Your task to perform on an android device: make emails show in primary in the gmail app Image 0: 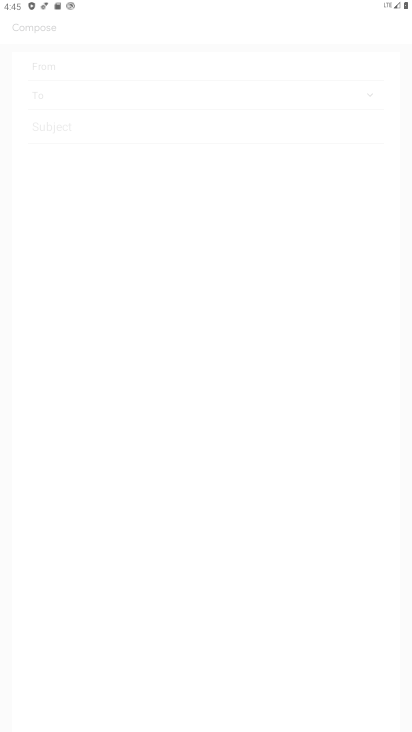
Step 0: press home button
Your task to perform on an android device: make emails show in primary in the gmail app Image 1: 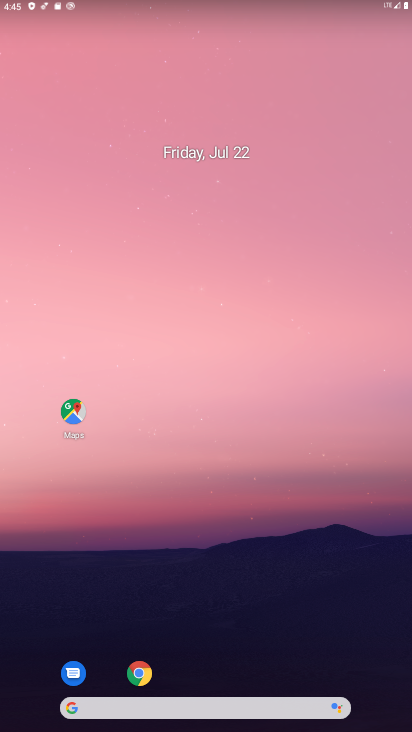
Step 1: drag from (255, 668) to (283, 183)
Your task to perform on an android device: make emails show in primary in the gmail app Image 2: 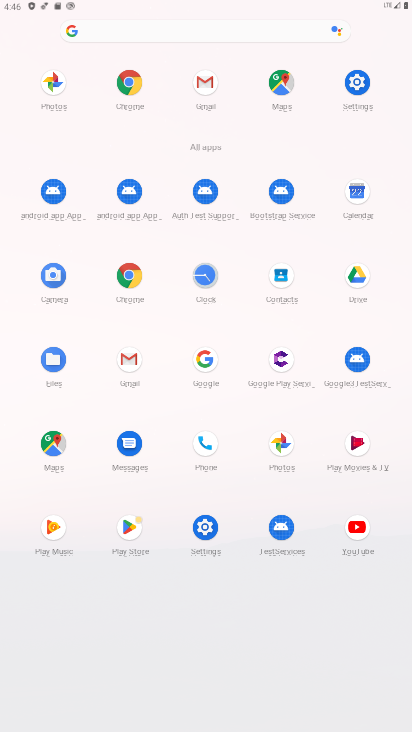
Step 2: click (198, 81)
Your task to perform on an android device: make emails show in primary in the gmail app Image 3: 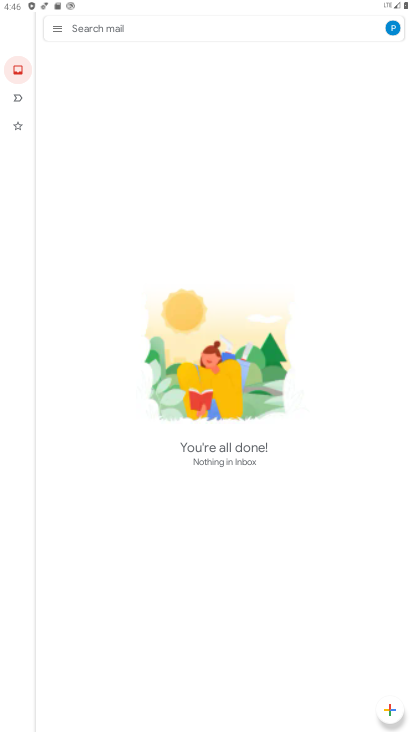
Step 3: click (57, 29)
Your task to perform on an android device: make emails show in primary in the gmail app Image 4: 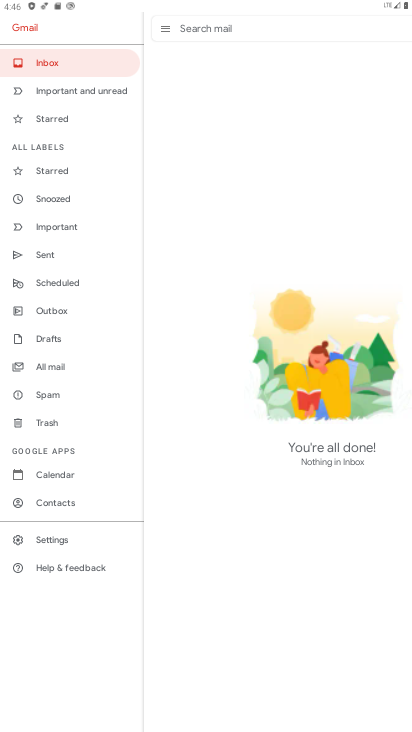
Step 4: click (58, 544)
Your task to perform on an android device: make emails show in primary in the gmail app Image 5: 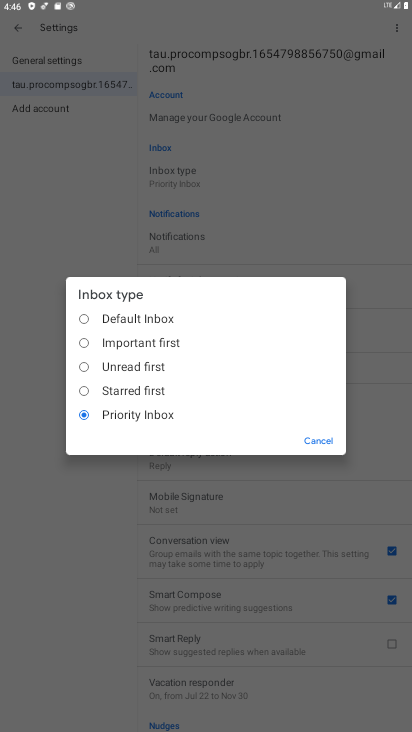
Step 5: drag from (282, 365) to (78, 317)
Your task to perform on an android device: make emails show in primary in the gmail app Image 6: 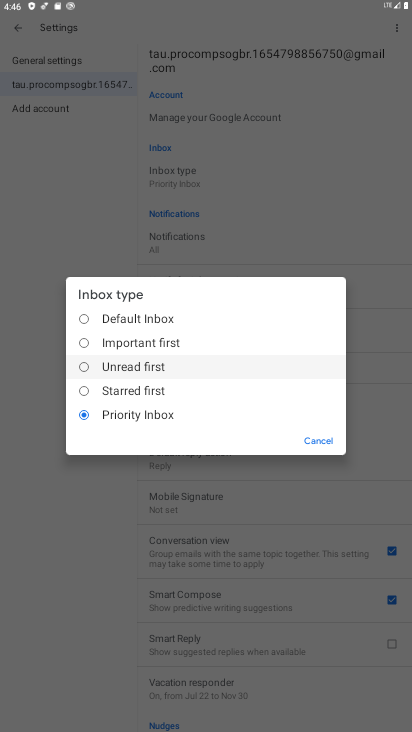
Step 6: click (81, 320)
Your task to perform on an android device: make emails show in primary in the gmail app Image 7: 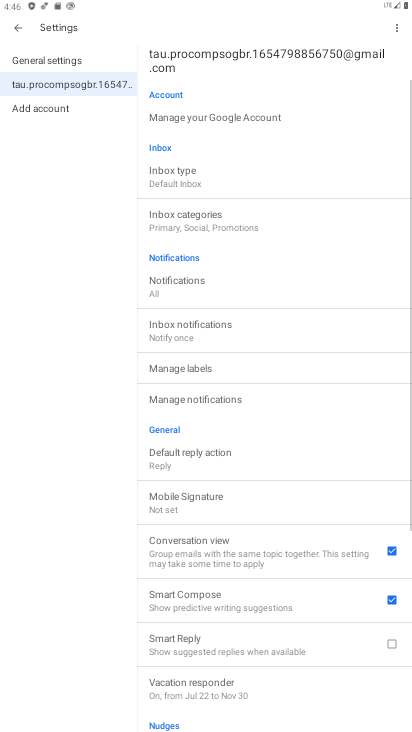
Step 7: click (198, 220)
Your task to perform on an android device: make emails show in primary in the gmail app Image 8: 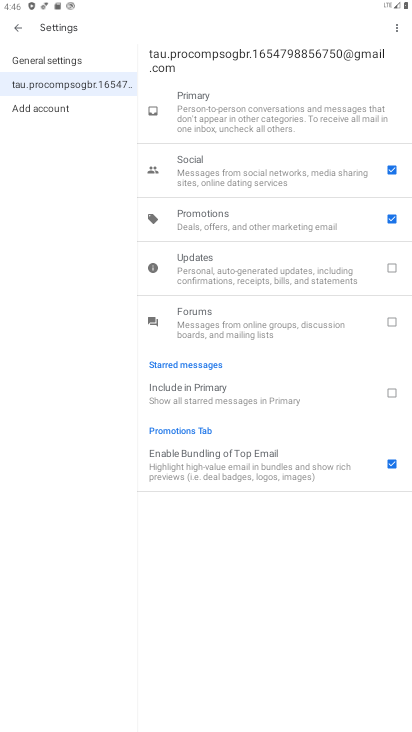
Step 8: click (393, 208)
Your task to perform on an android device: make emails show in primary in the gmail app Image 9: 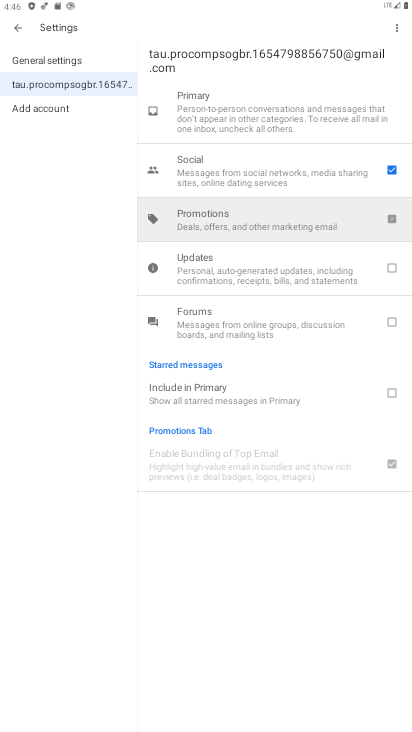
Step 9: click (391, 215)
Your task to perform on an android device: make emails show in primary in the gmail app Image 10: 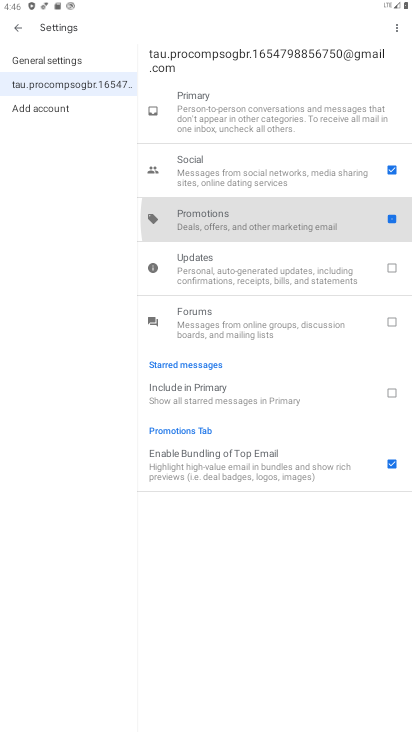
Step 10: click (391, 164)
Your task to perform on an android device: make emails show in primary in the gmail app Image 11: 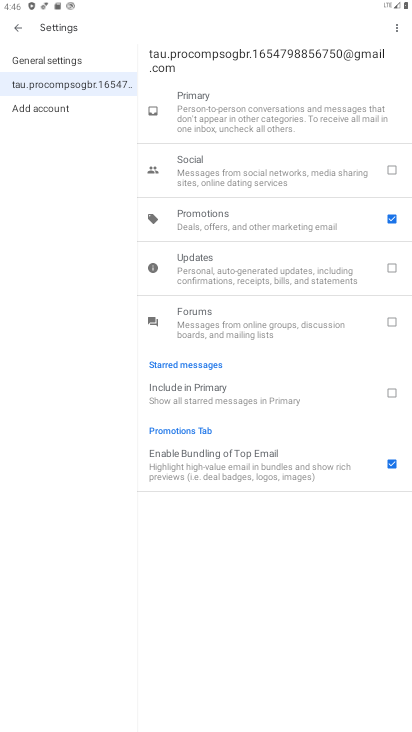
Step 11: click (383, 218)
Your task to perform on an android device: make emails show in primary in the gmail app Image 12: 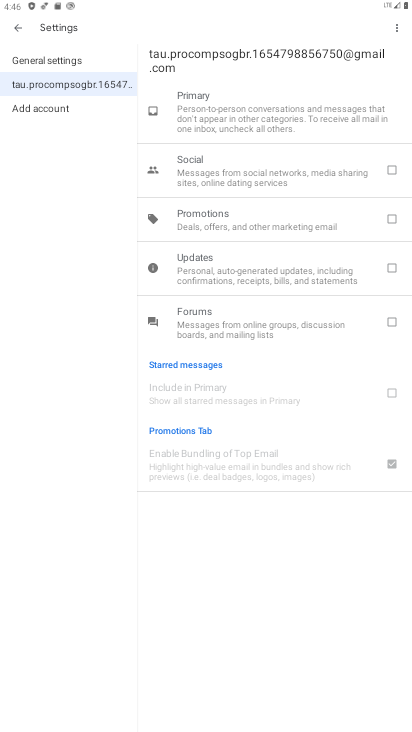
Step 12: task complete